Your task to perform on an android device: remove spam from my inbox in the gmail app Image 0: 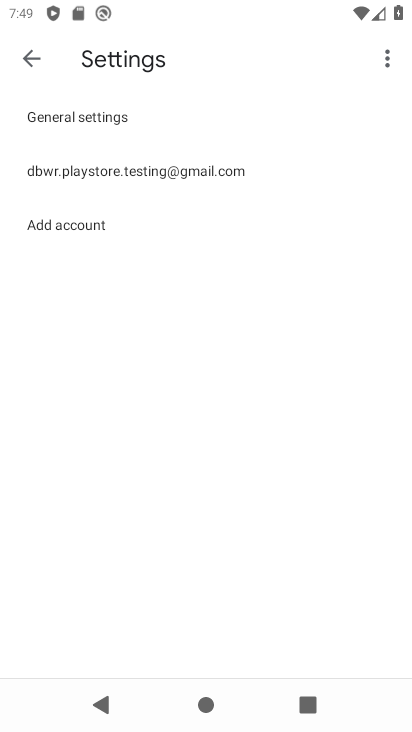
Step 0: press home button
Your task to perform on an android device: remove spam from my inbox in the gmail app Image 1: 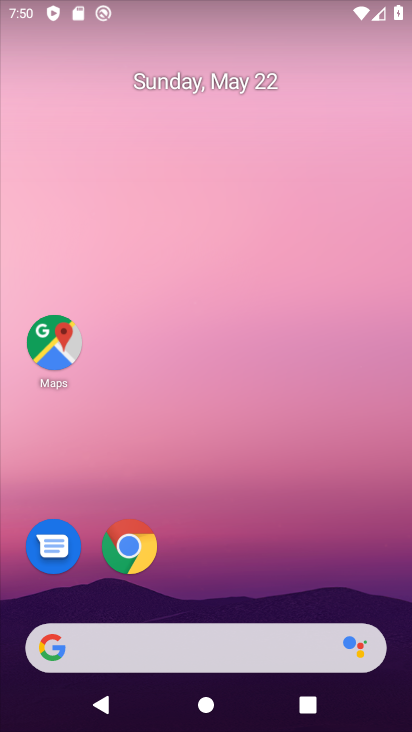
Step 1: drag from (165, 638) to (276, 174)
Your task to perform on an android device: remove spam from my inbox in the gmail app Image 2: 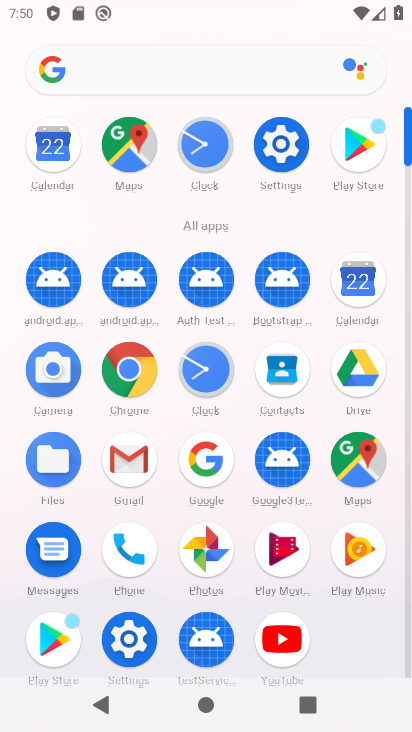
Step 2: click (124, 472)
Your task to perform on an android device: remove spam from my inbox in the gmail app Image 3: 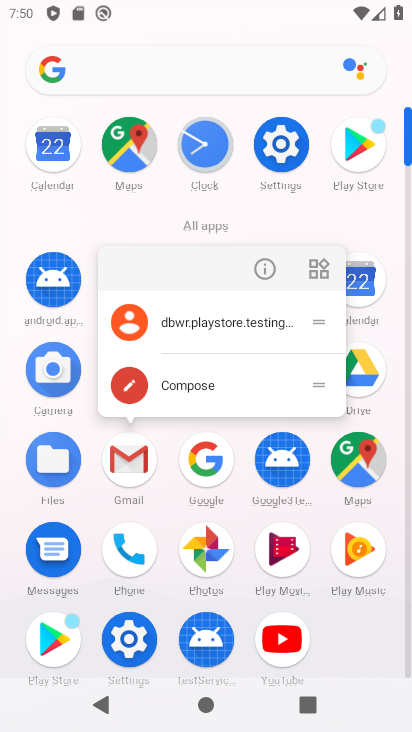
Step 3: click (128, 467)
Your task to perform on an android device: remove spam from my inbox in the gmail app Image 4: 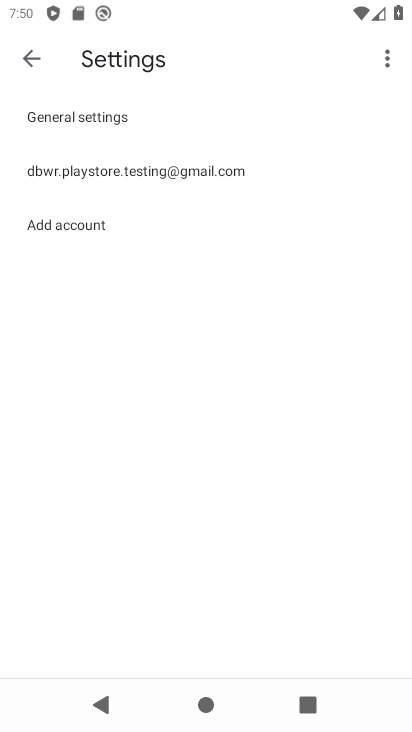
Step 4: click (130, 470)
Your task to perform on an android device: remove spam from my inbox in the gmail app Image 5: 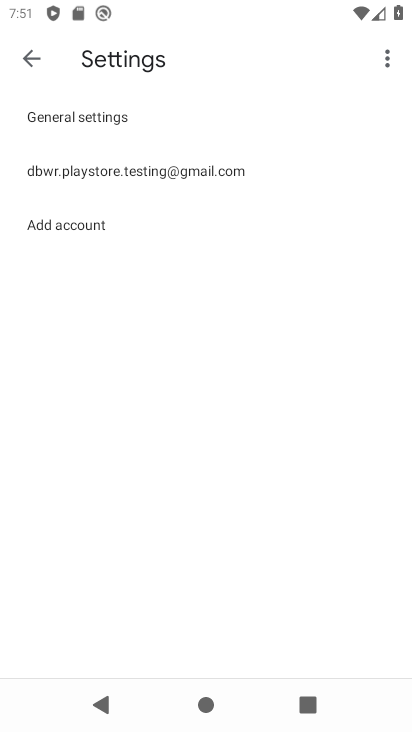
Step 5: click (31, 59)
Your task to perform on an android device: remove spam from my inbox in the gmail app Image 6: 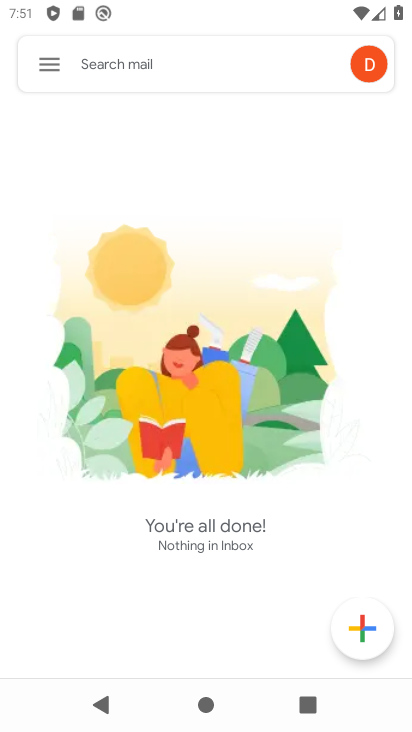
Step 6: click (44, 61)
Your task to perform on an android device: remove spam from my inbox in the gmail app Image 7: 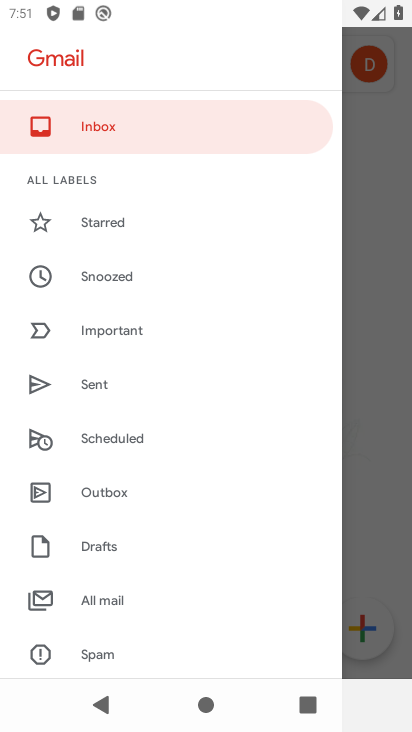
Step 7: click (103, 657)
Your task to perform on an android device: remove spam from my inbox in the gmail app Image 8: 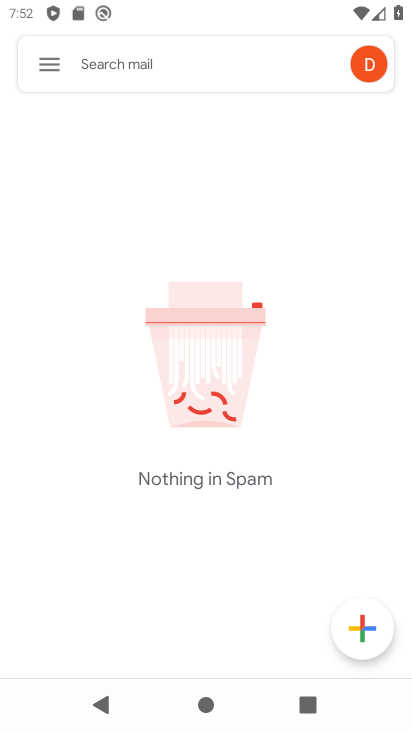
Step 8: task complete